Your task to perform on an android device: find photos in the google photos app Image 0: 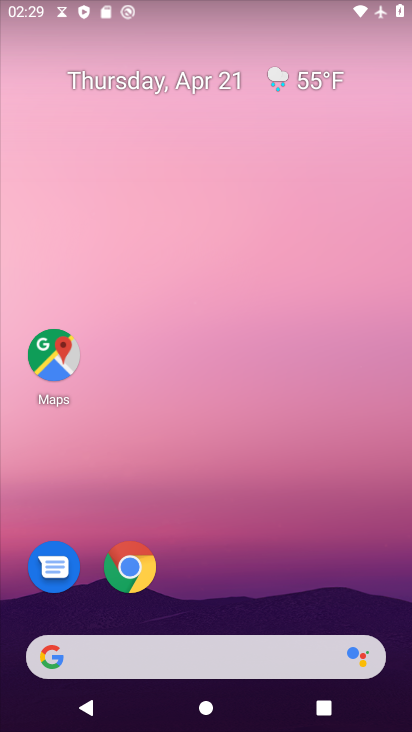
Step 0: drag from (179, 655) to (363, 70)
Your task to perform on an android device: find photos in the google photos app Image 1: 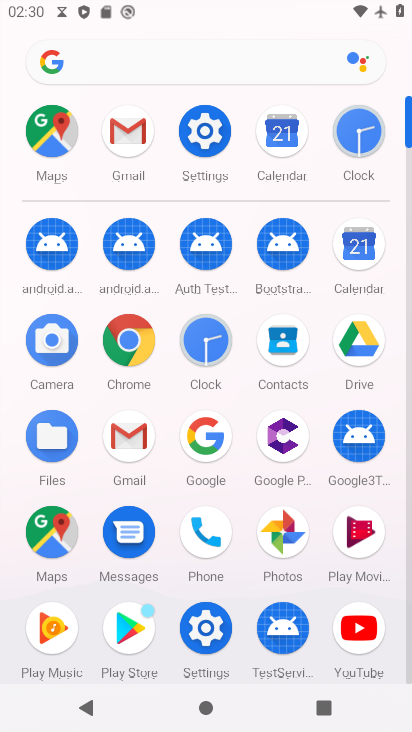
Step 1: click (293, 519)
Your task to perform on an android device: find photos in the google photos app Image 2: 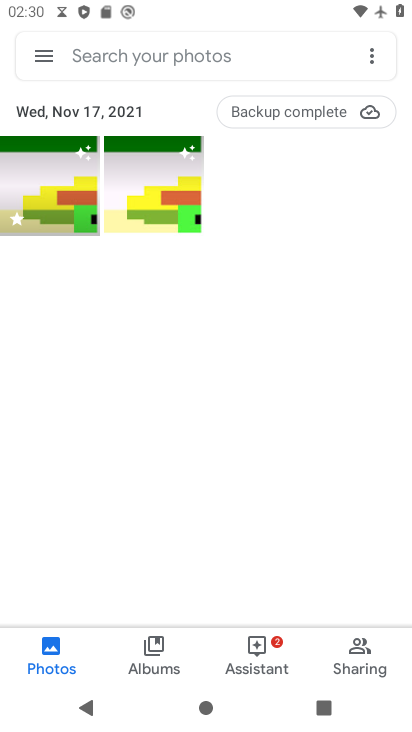
Step 2: task complete